Your task to perform on an android device: toggle translation in the chrome app Image 0: 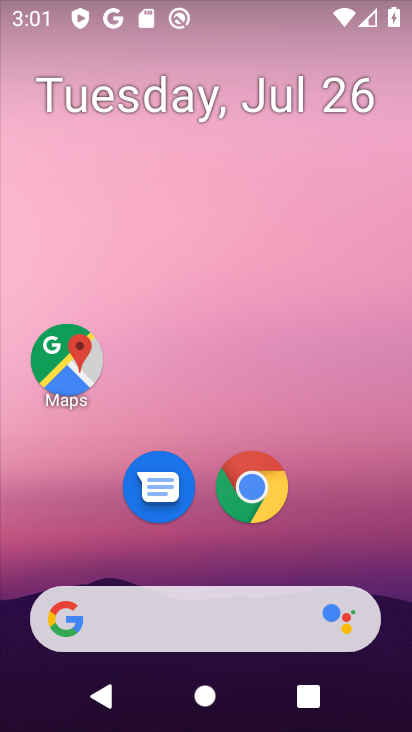
Step 0: click (250, 470)
Your task to perform on an android device: toggle translation in the chrome app Image 1: 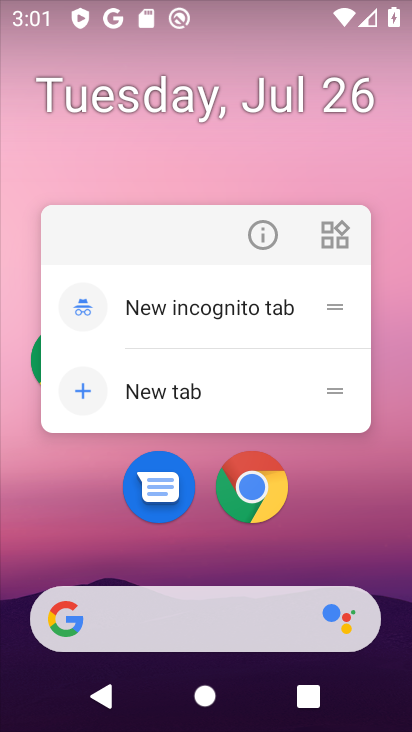
Step 1: click (259, 473)
Your task to perform on an android device: toggle translation in the chrome app Image 2: 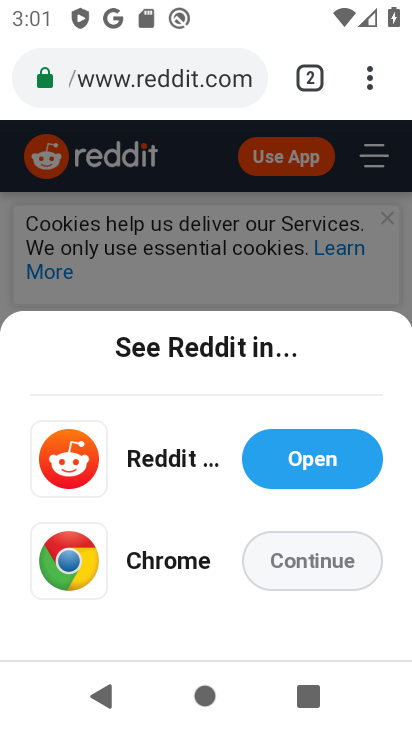
Step 2: drag from (366, 79) to (94, 552)
Your task to perform on an android device: toggle translation in the chrome app Image 3: 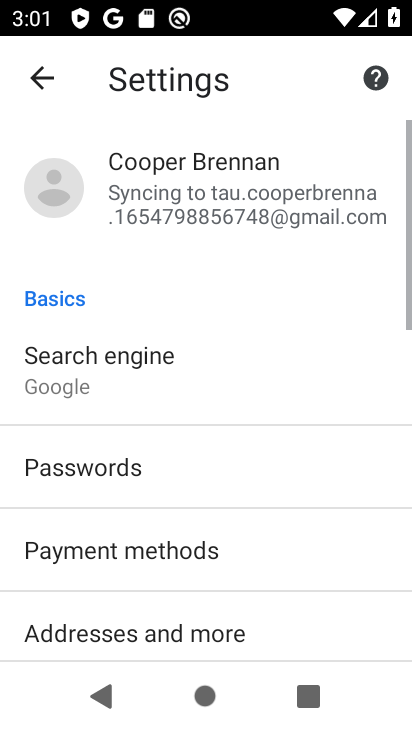
Step 3: drag from (122, 539) to (244, 132)
Your task to perform on an android device: toggle translation in the chrome app Image 4: 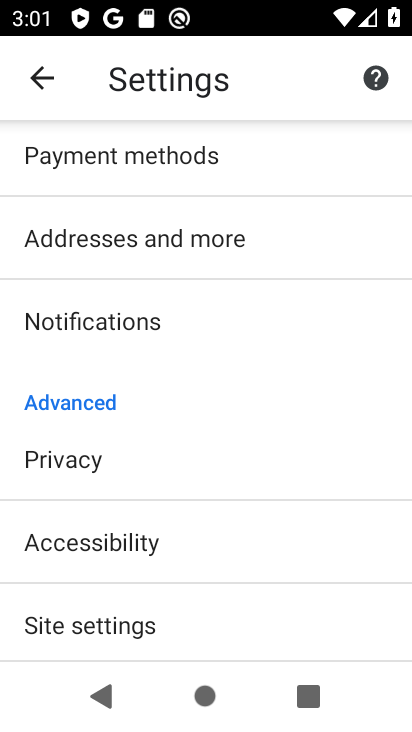
Step 4: drag from (106, 617) to (202, 111)
Your task to perform on an android device: toggle translation in the chrome app Image 5: 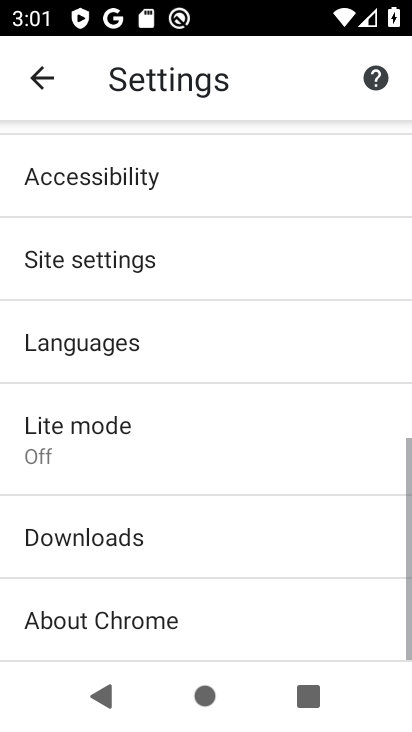
Step 5: click (115, 332)
Your task to perform on an android device: toggle translation in the chrome app Image 6: 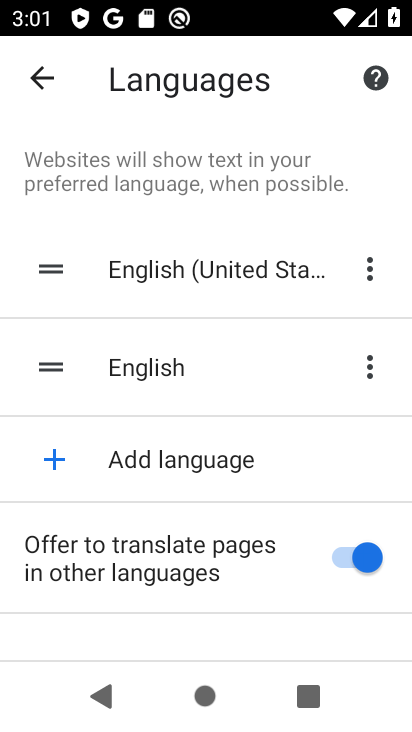
Step 6: click (338, 558)
Your task to perform on an android device: toggle translation in the chrome app Image 7: 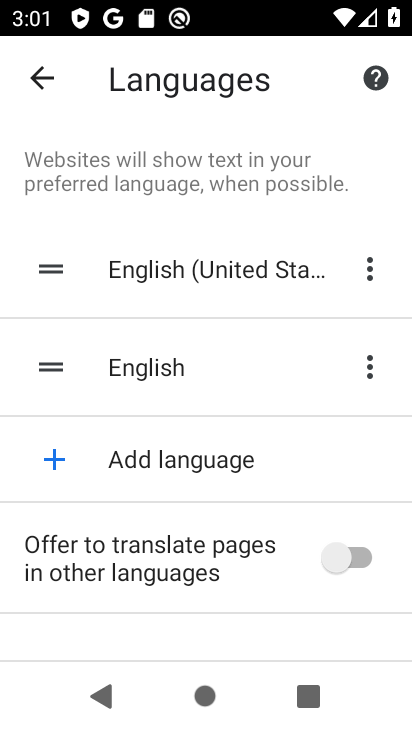
Step 7: task complete